Your task to perform on an android device: check battery use Image 0: 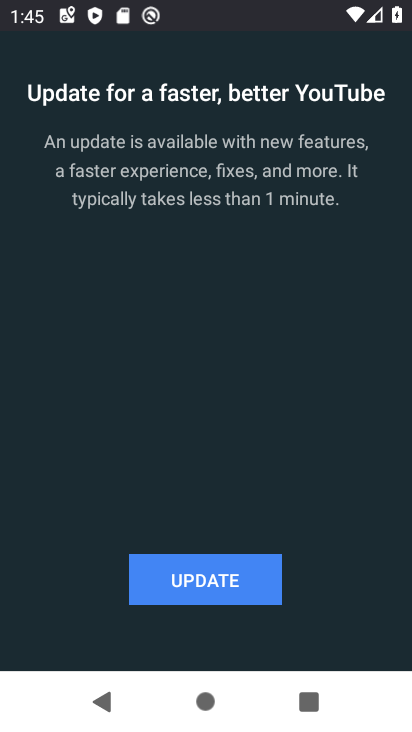
Step 0: press home button
Your task to perform on an android device: check battery use Image 1: 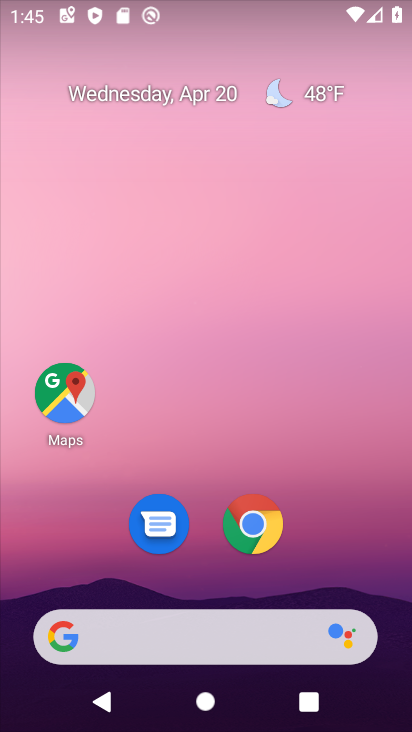
Step 1: drag from (371, 501) to (334, 36)
Your task to perform on an android device: check battery use Image 2: 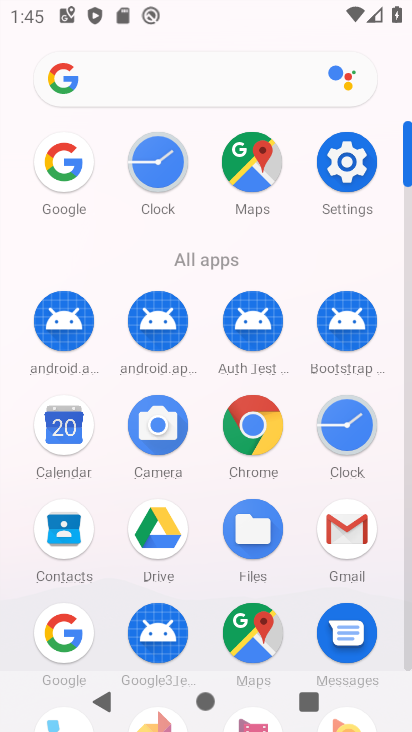
Step 2: click (342, 162)
Your task to perform on an android device: check battery use Image 3: 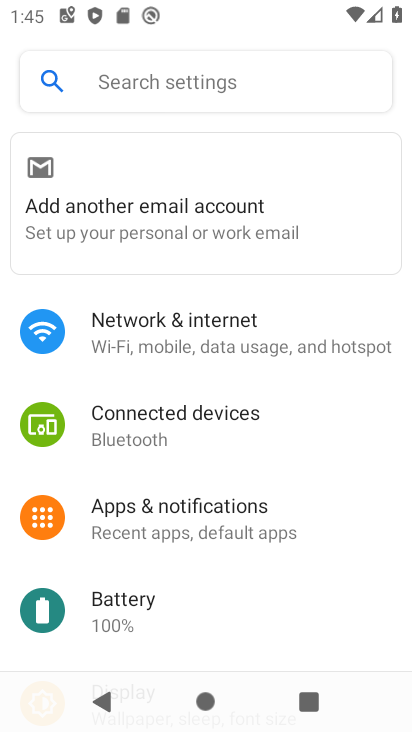
Step 3: click (131, 604)
Your task to perform on an android device: check battery use Image 4: 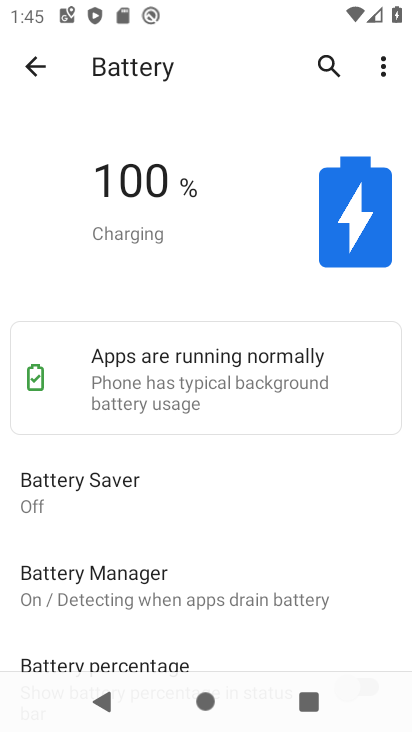
Step 4: click (387, 62)
Your task to perform on an android device: check battery use Image 5: 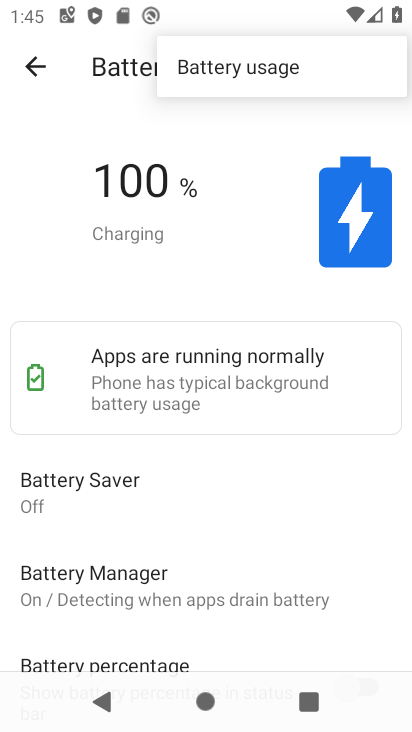
Step 5: click (325, 78)
Your task to perform on an android device: check battery use Image 6: 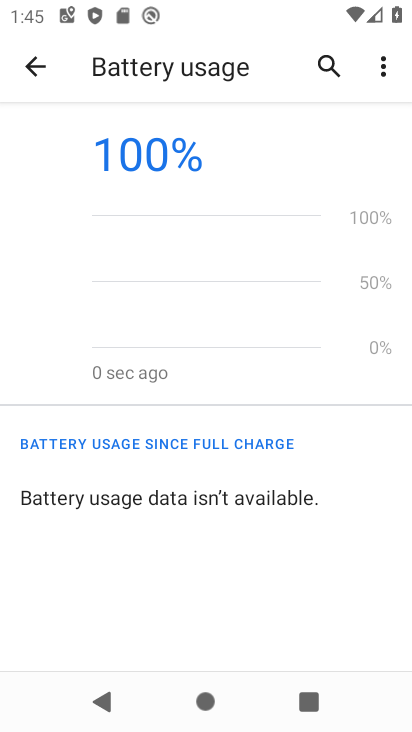
Step 6: task complete